Your task to perform on an android device: Show me recent news Image 0: 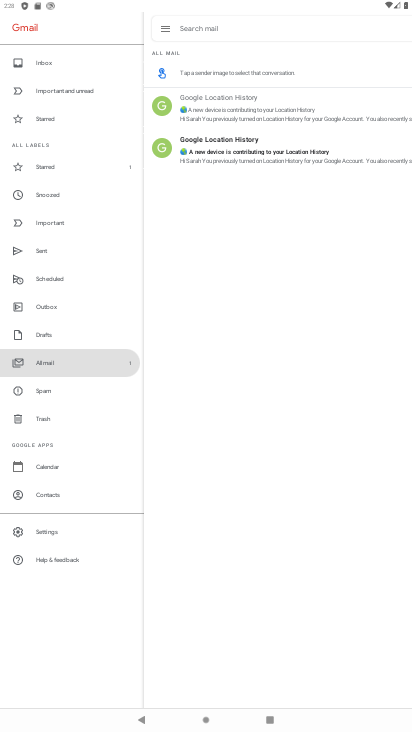
Step 0: press home button
Your task to perform on an android device: Show me recent news Image 1: 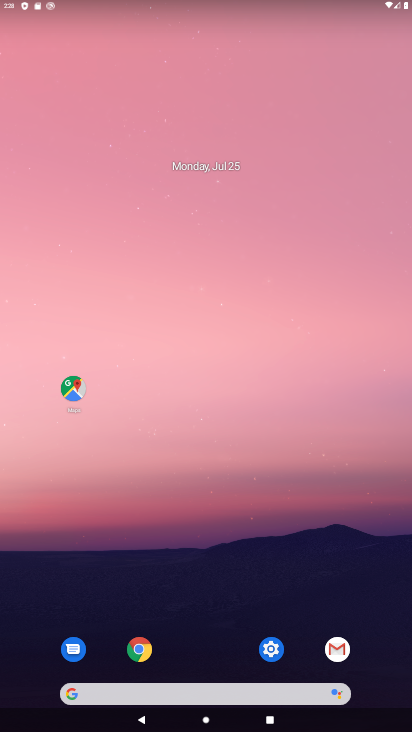
Step 1: click (150, 694)
Your task to perform on an android device: Show me recent news Image 2: 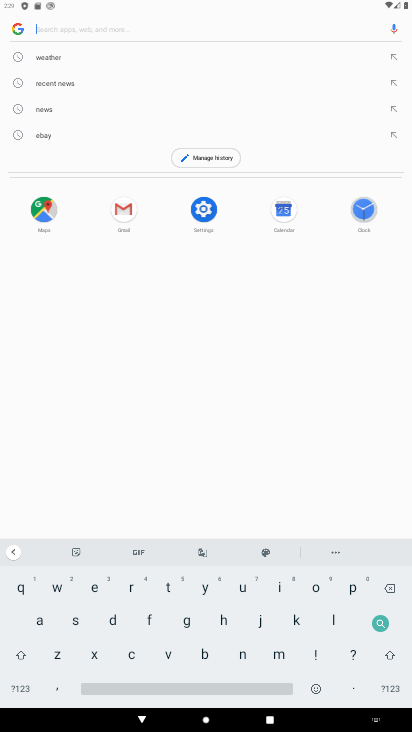
Step 2: click (80, 79)
Your task to perform on an android device: Show me recent news Image 3: 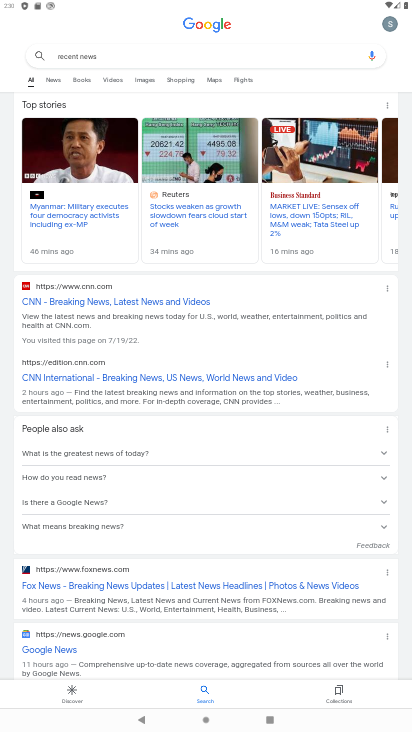
Step 3: task complete